Your task to perform on an android device: What is the recent news? Image 0: 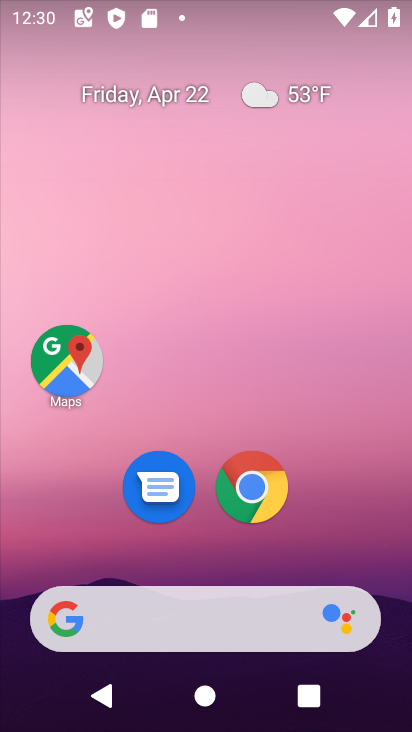
Step 0: drag from (366, 518) to (295, 66)
Your task to perform on an android device: What is the recent news? Image 1: 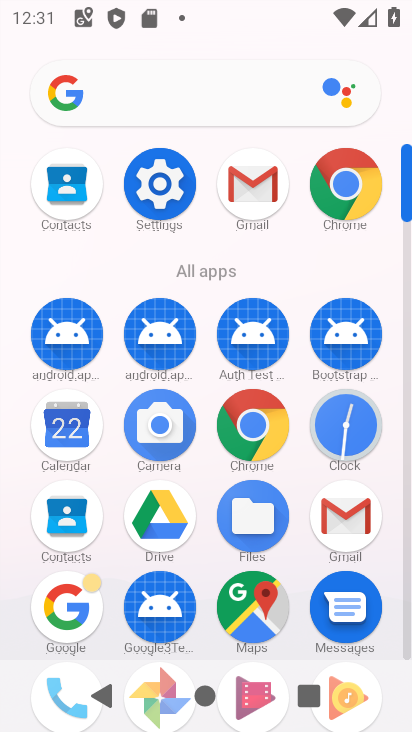
Step 1: click (337, 187)
Your task to perform on an android device: What is the recent news? Image 2: 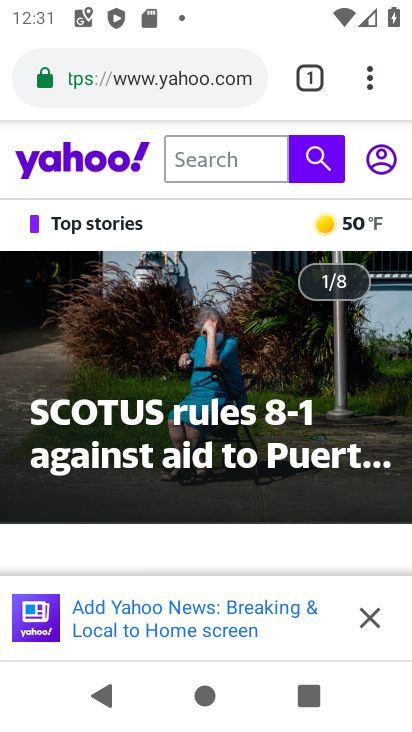
Step 2: task complete